Your task to perform on an android device: Open Reddit.com Image 0: 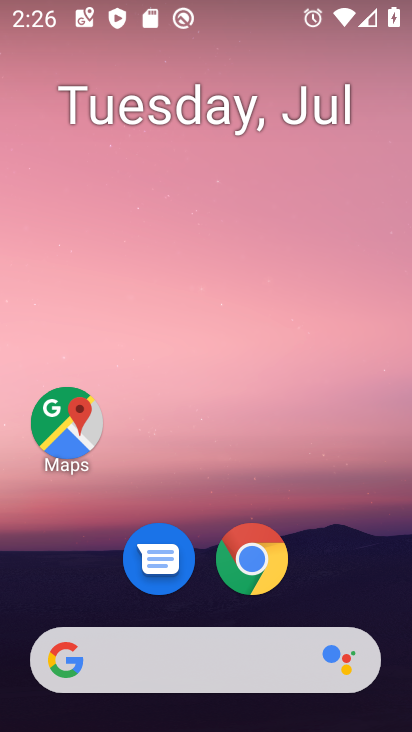
Step 0: drag from (372, 569) to (371, 117)
Your task to perform on an android device: Open Reddit.com Image 1: 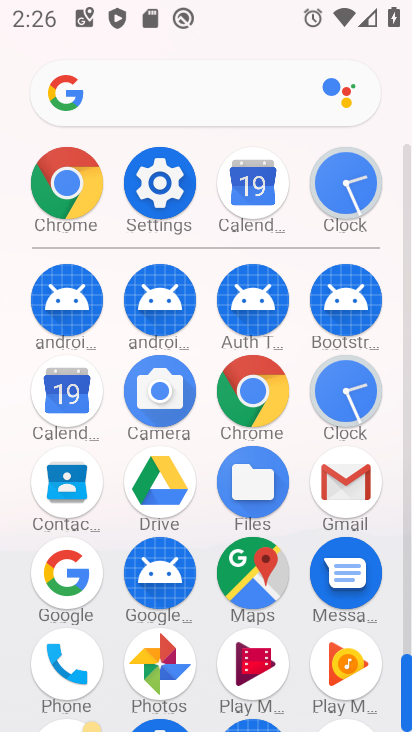
Step 1: click (274, 391)
Your task to perform on an android device: Open Reddit.com Image 2: 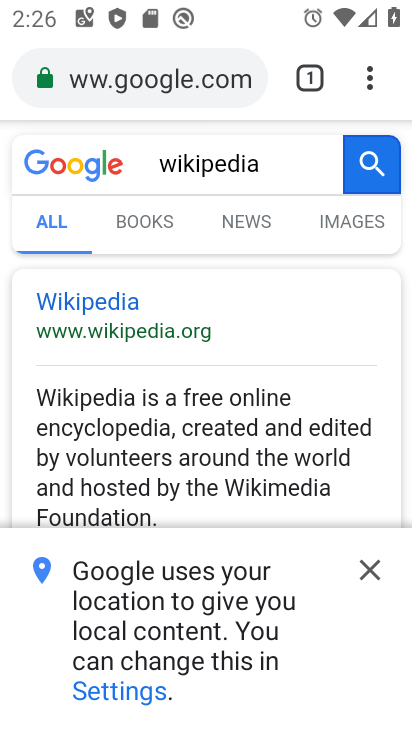
Step 2: click (188, 75)
Your task to perform on an android device: Open Reddit.com Image 3: 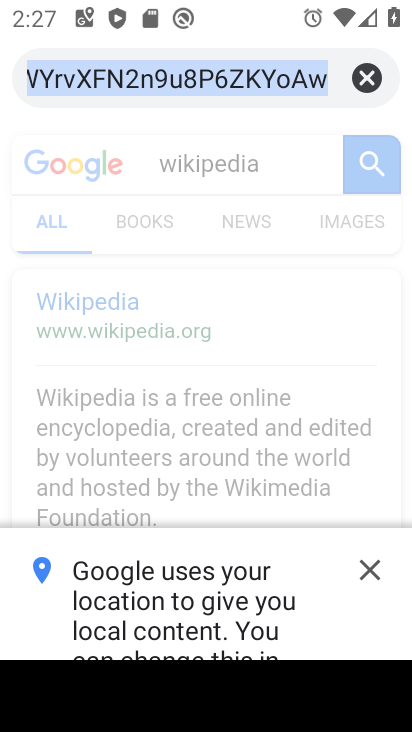
Step 3: type "reddit.com"
Your task to perform on an android device: Open Reddit.com Image 4: 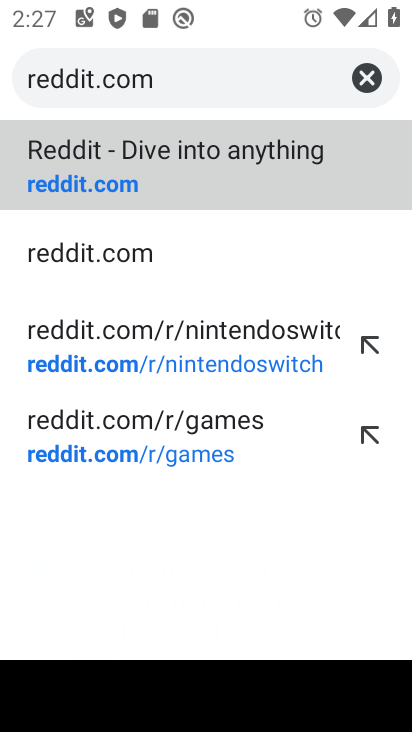
Step 4: click (306, 181)
Your task to perform on an android device: Open Reddit.com Image 5: 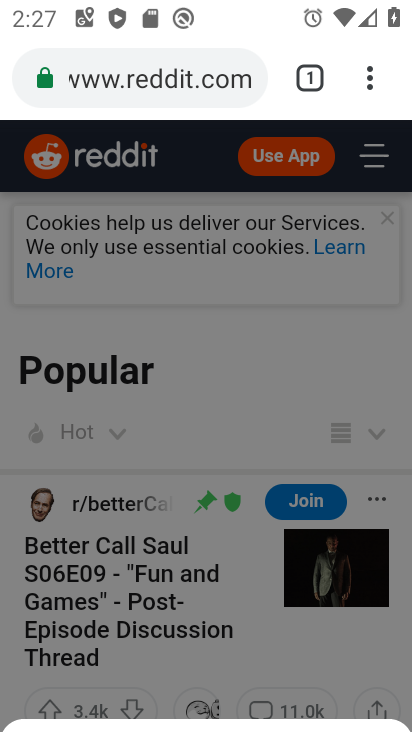
Step 5: task complete